Your task to perform on an android device: Check the news Image 0: 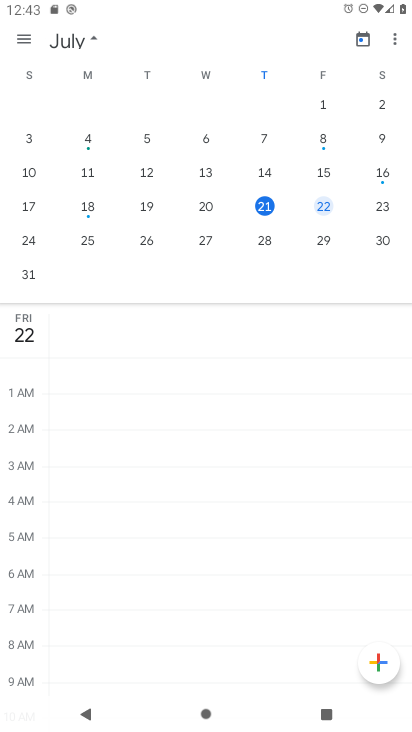
Step 0: press home button
Your task to perform on an android device: Check the news Image 1: 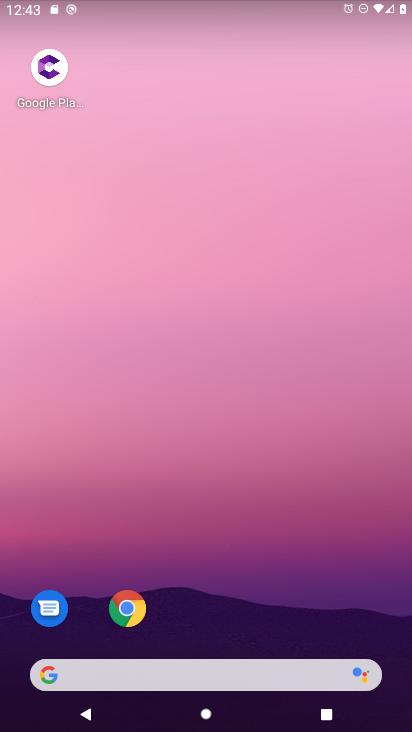
Step 1: click (44, 674)
Your task to perform on an android device: Check the news Image 2: 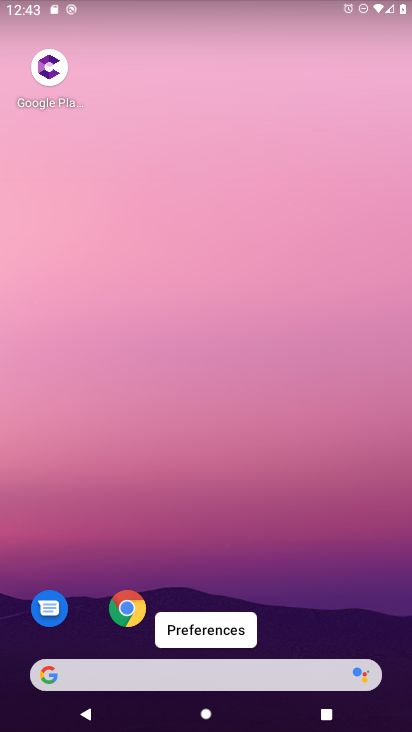
Step 2: click (44, 674)
Your task to perform on an android device: Check the news Image 3: 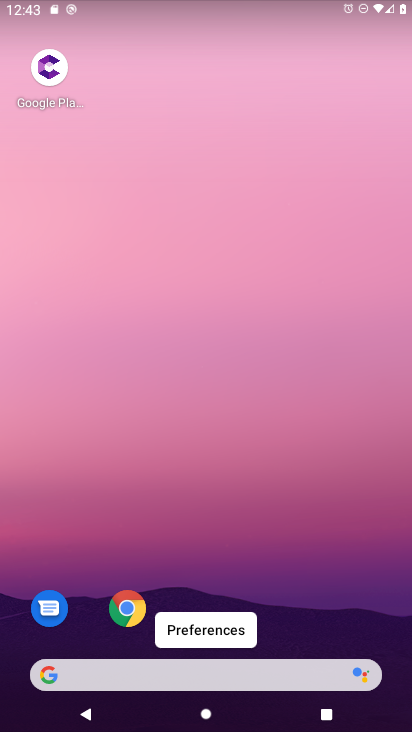
Step 3: click (44, 674)
Your task to perform on an android device: Check the news Image 4: 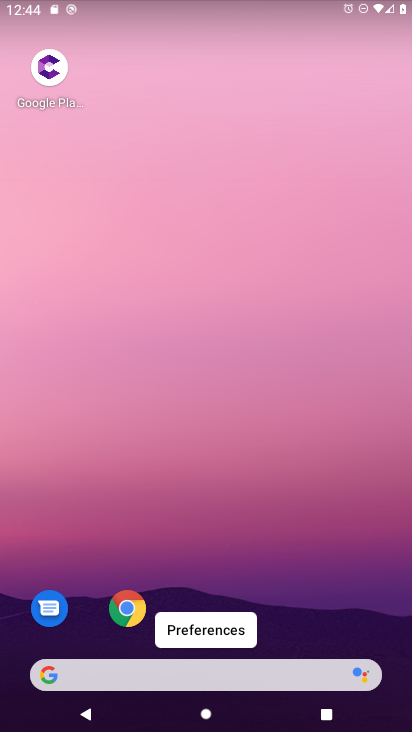
Step 4: click (44, 674)
Your task to perform on an android device: Check the news Image 5: 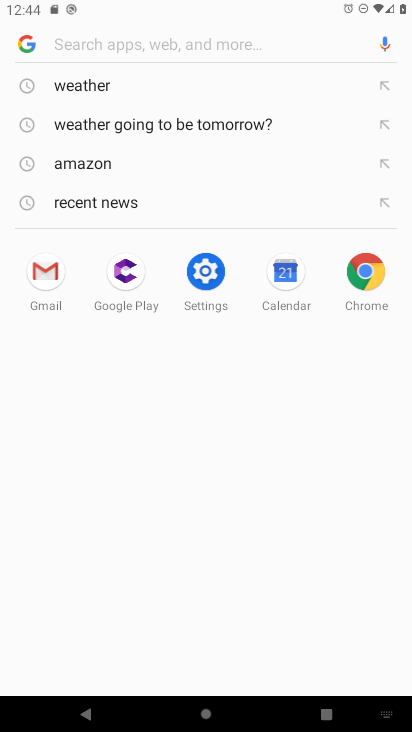
Step 5: type " news"
Your task to perform on an android device: Check the news Image 6: 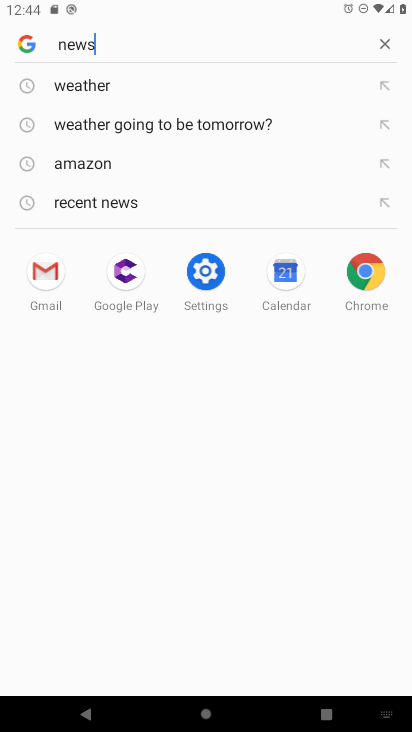
Step 6: press enter
Your task to perform on an android device: Check the news Image 7: 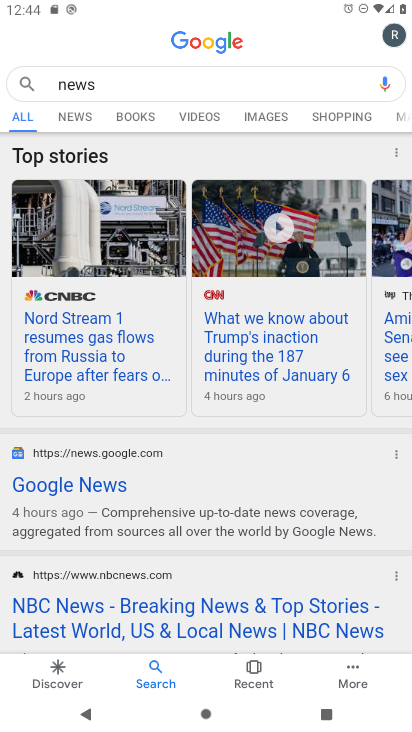
Step 7: task complete